Your task to perform on an android device: change the clock display to analog Image 0: 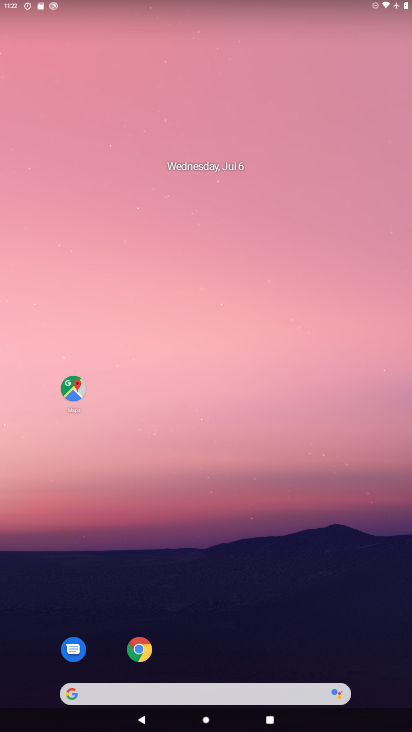
Step 0: drag from (359, 665) to (342, 232)
Your task to perform on an android device: change the clock display to analog Image 1: 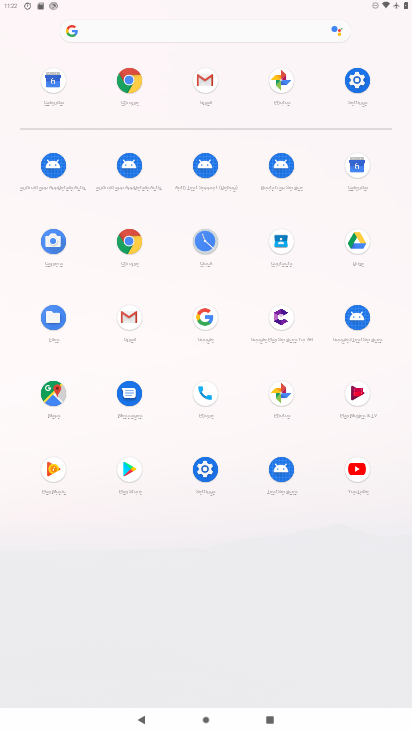
Step 1: click (211, 237)
Your task to perform on an android device: change the clock display to analog Image 2: 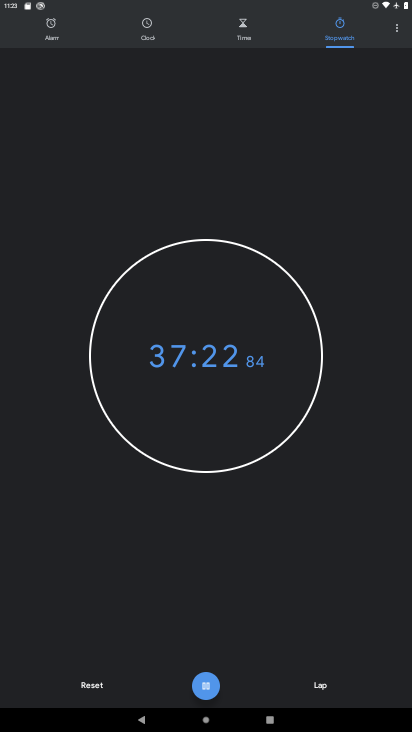
Step 2: click (400, 30)
Your task to perform on an android device: change the clock display to analog Image 3: 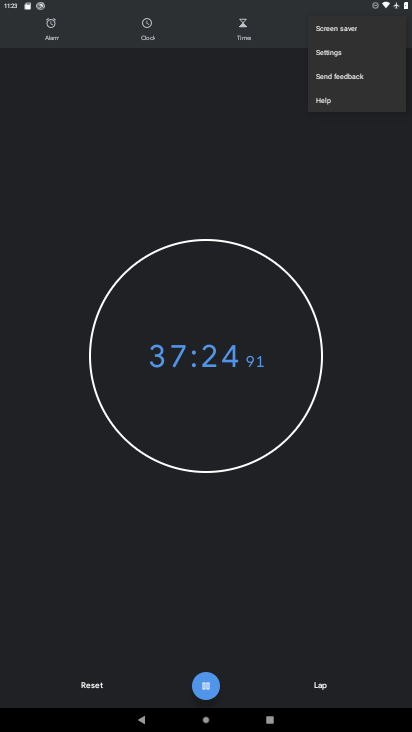
Step 3: click (331, 48)
Your task to perform on an android device: change the clock display to analog Image 4: 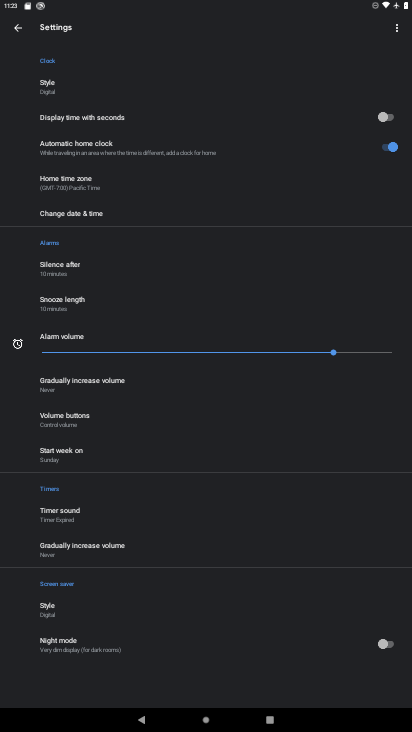
Step 4: click (43, 81)
Your task to perform on an android device: change the clock display to analog Image 5: 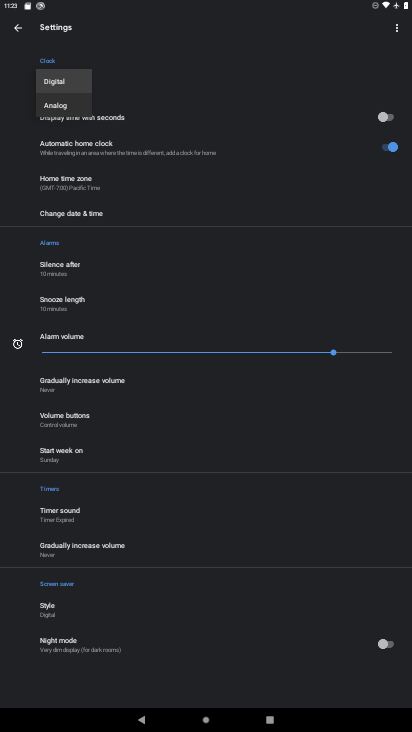
Step 5: click (53, 106)
Your task to perform on an android device: change the clock display to analog Image 6: 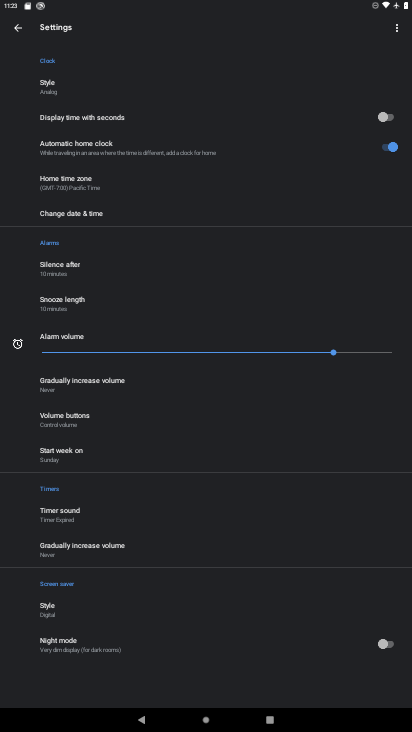
Step 6: task complete